Your task to perform on an android device: Do I have any events this weekend? Image 0: 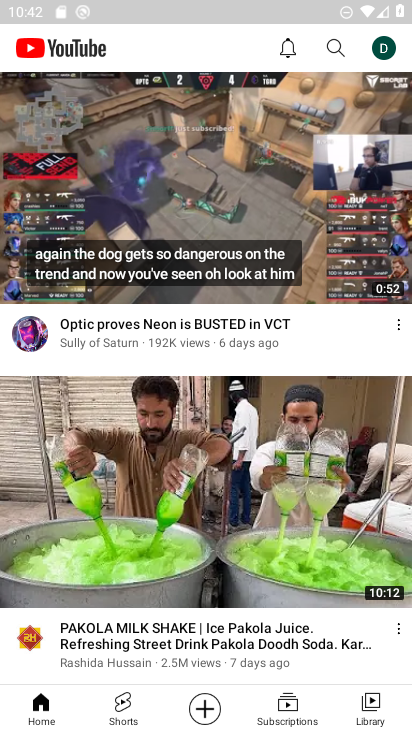
Step 0: press home button
Your task to perform on an android device: Do I have any events this weekend? Image 1: 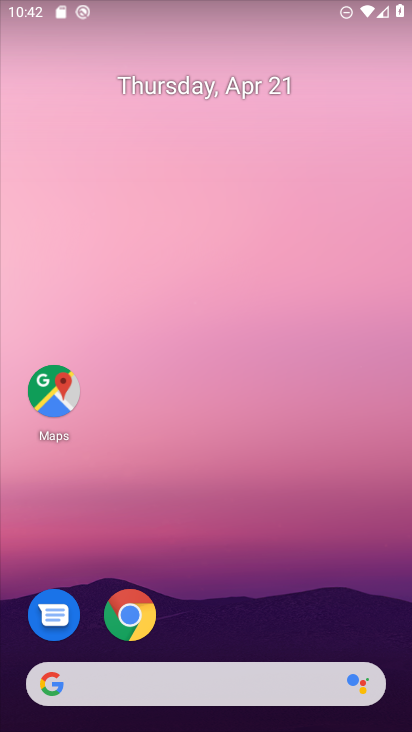
Step 1: drag from (217, 707) to (209, 322)
Your task to perform on an android device: Do I have any events this weekend? Image 2: 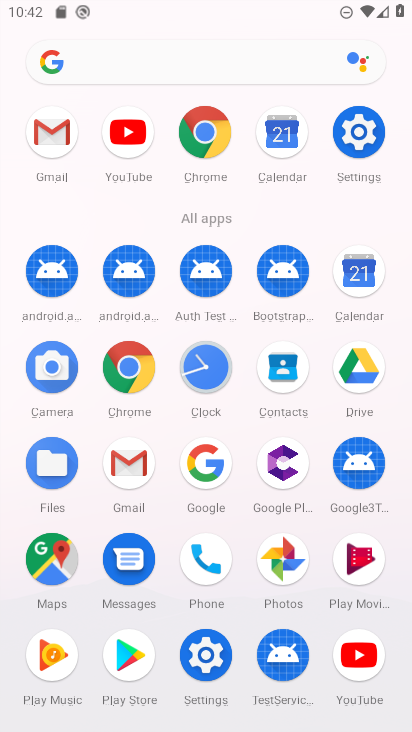
Step 2: click (359, 276)
Your task to perform on an android device: Do I have any events this weekend? Image 3: 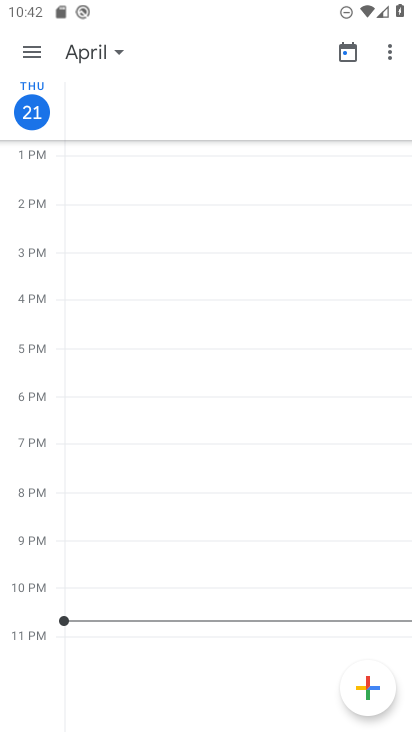
Step 3: click (29, 52)
Your task to perform on an android device: Do I have any events this weekend? Image 4: 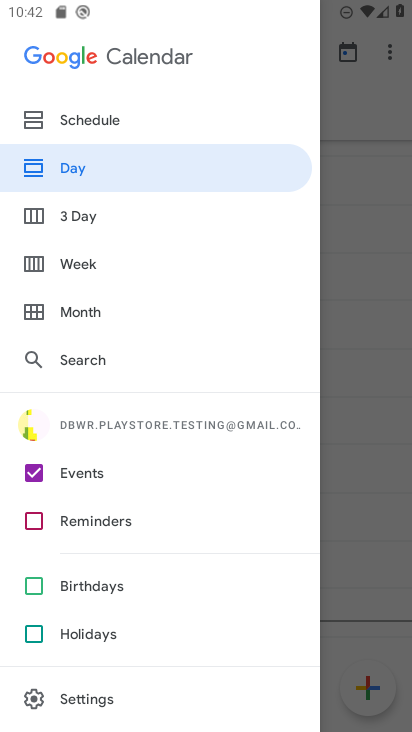
Step 4: click (97, 115)
Your task to perform on an android device: Do I have any events this weekend? Image 5: 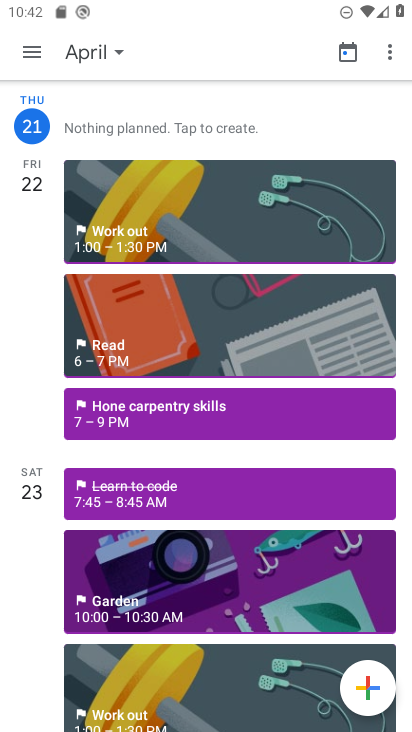
Step 5: click (82, 47)
Your task to perform on an android device: Do I have any events this weekend? Image 6: 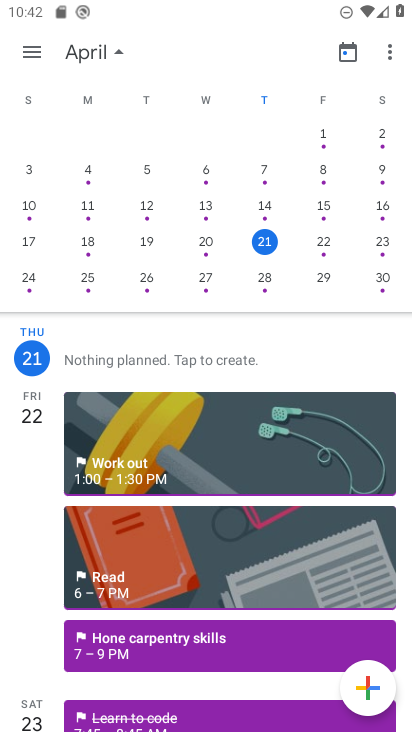
Step 6: click (384, 237)
Your task to perform on an android device: Do I have any events this weekend? Image 7: 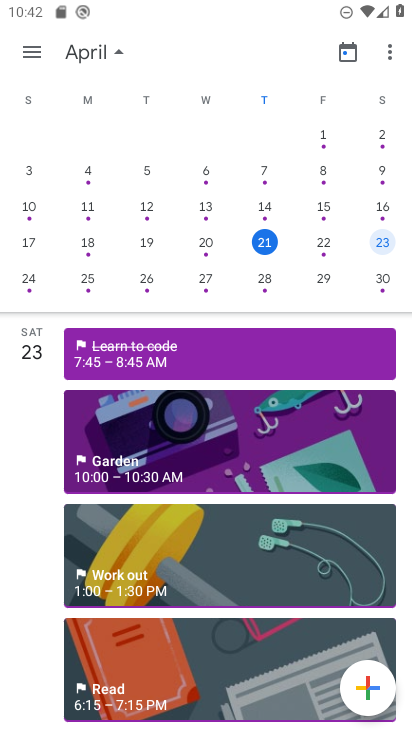
Step 7: click (384, 237)
Your task to perform on an android device: Do I have any events this weekend? Image 8: 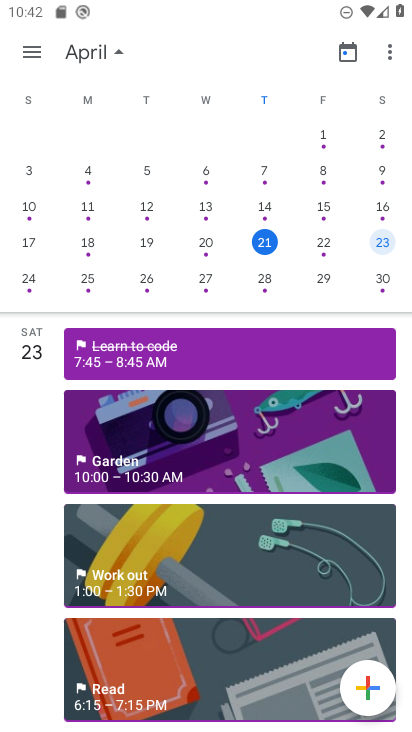
Step 8: task complete